Your task to perform on an android device: open device folders in google photos Image 0: 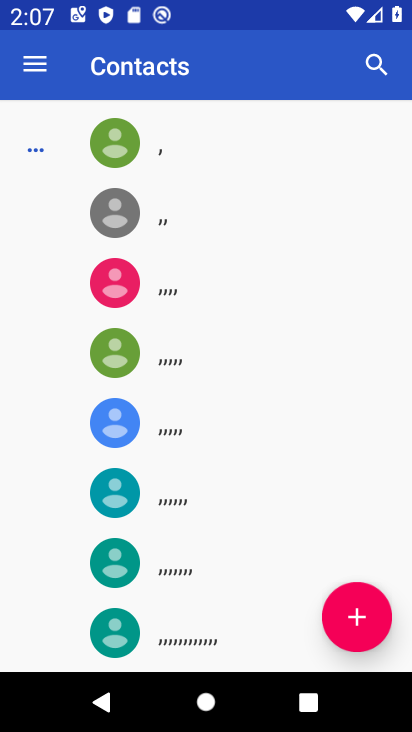
Step 0: press home button
Your task to perform on an android device: open device folders in google photos Image 1: 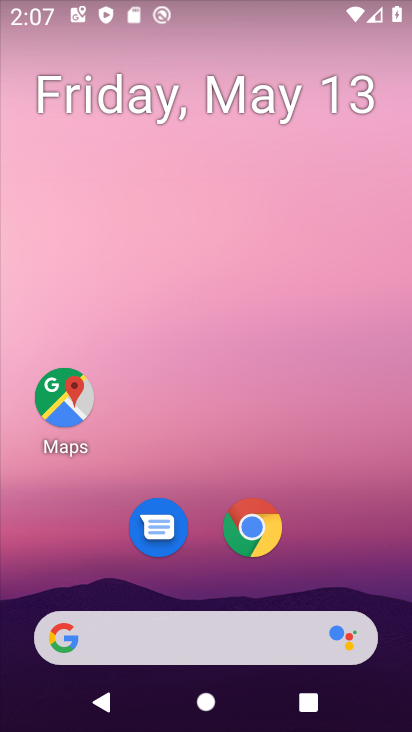
Step 1: drag from (217, 590) to (262, 202)
Your task to perform on an android device: open device folders in google photos Image 2: 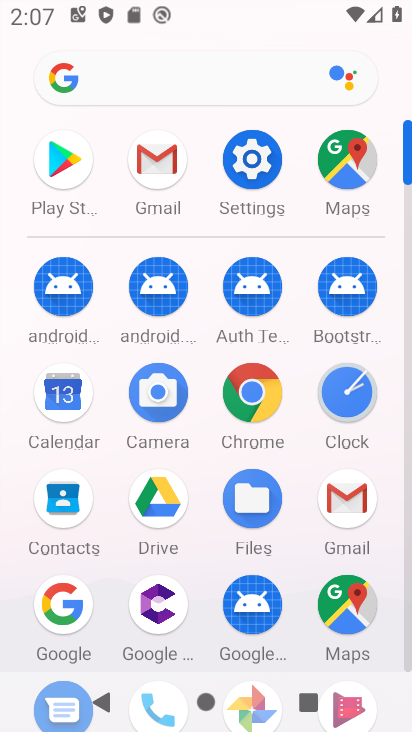
Step 2: drag from (188, 553) to (214, 265)
Your task to perform on an android device: open device folders in google photos Image 3: 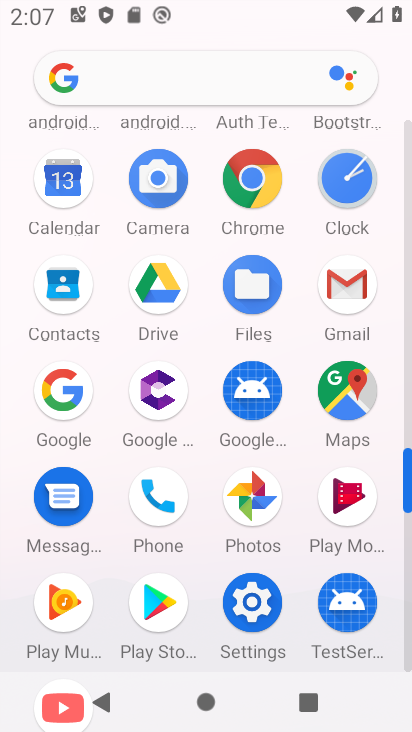
Step 3: click (249, 505)
Your task to perform on an android device: open device folders in google photos Image 4: 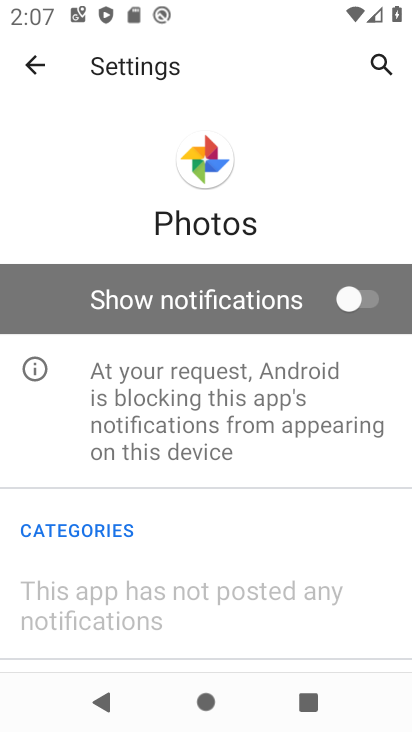
Step 4: click (25, 56)
Your task to perform on an android device: open device folders in google photos Image 5: 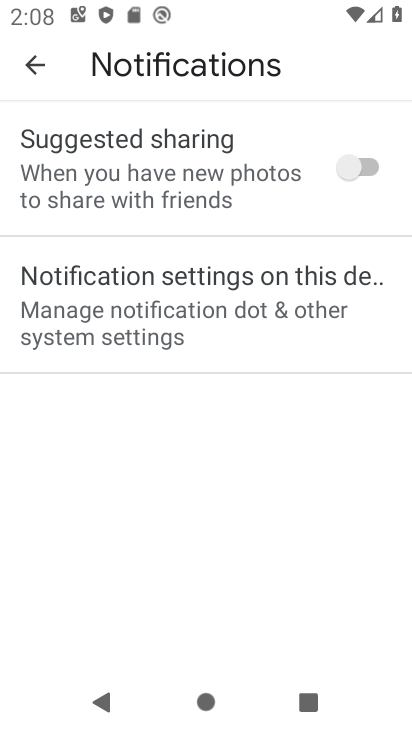
Step 5: click (29, 68)
Your task to perform on an android device: open device folders in google photos Image 6: 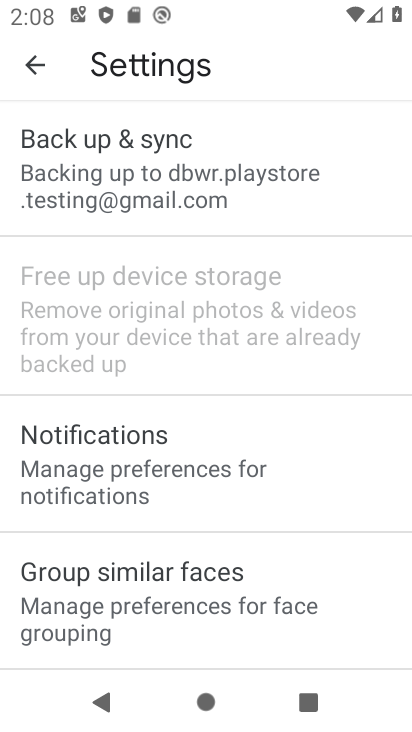
Step 6: click (38, 87)
Your task to perform on an android device: open device folders in google photos Image 7: 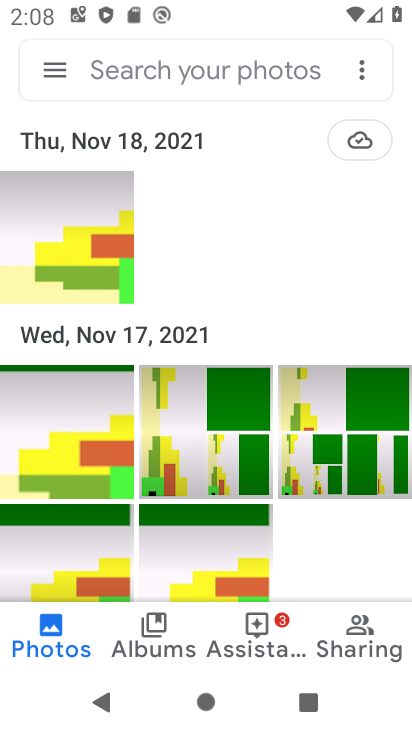
Step 7: click (61, 55)
Your task to perform on an android device: open device folders in google photos Image 8: 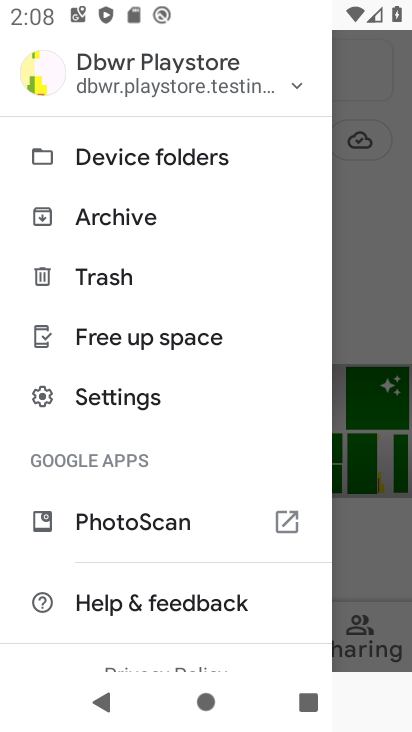
Step 8: click (122, 156)
Your task to perform on an android device: open device folders in google photos Image 9: 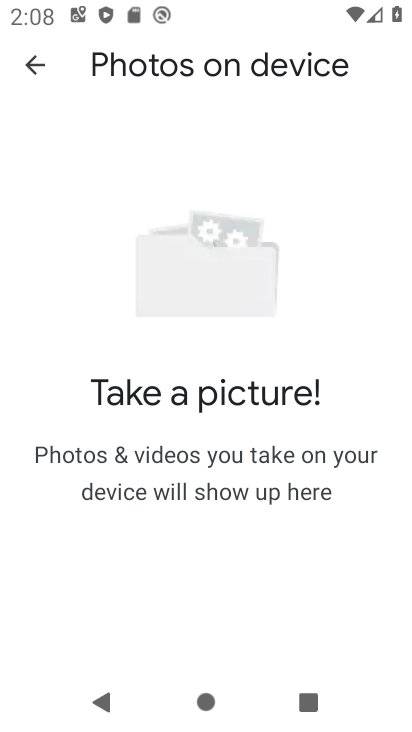
Step 9: task complete